Your task to perform on an android device: What's on my calendar tomorrow? Image 0: 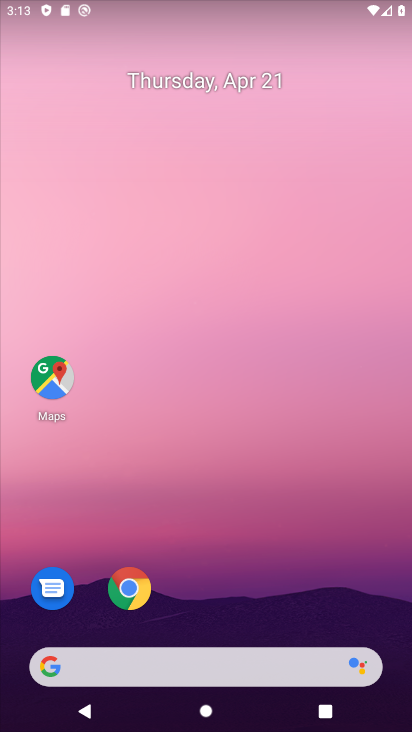
Step 0: drag from (193, 662) to (20, 3)
Your task to perform on an android device: What's on my calendar tomorrow? Image 1: 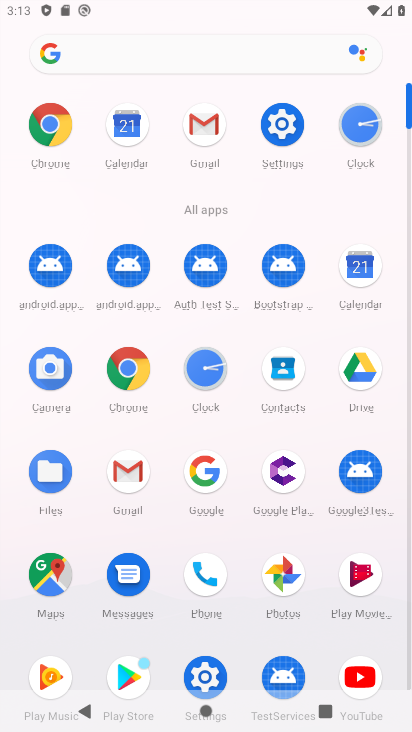
Step 1: click (358, 273)
Your task to perform on an android device: What's on my calendar tomorrow? Image 2: 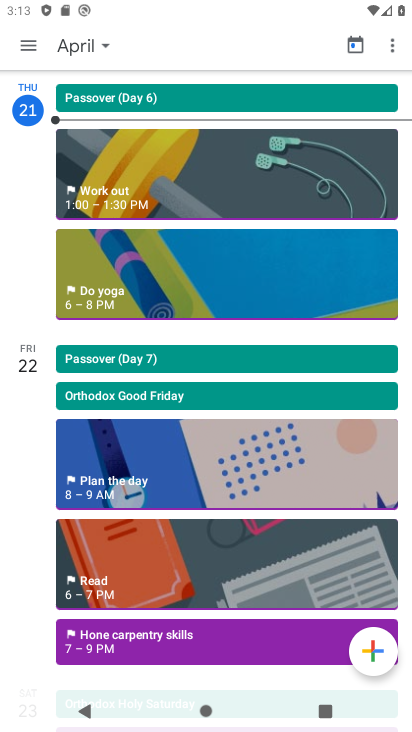
Step 2: task complete